Your task to perform on an android device: Open network settings Image 0: 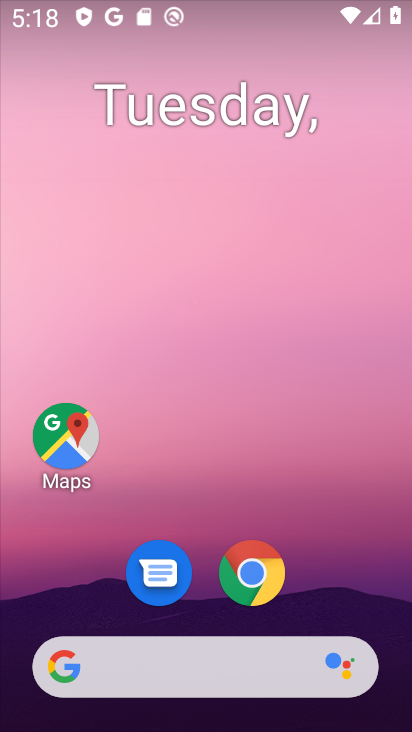
Step 0: drag from (345, 572) to (253, 30)
Your task to perform on an android device: Open network settings Image 1: 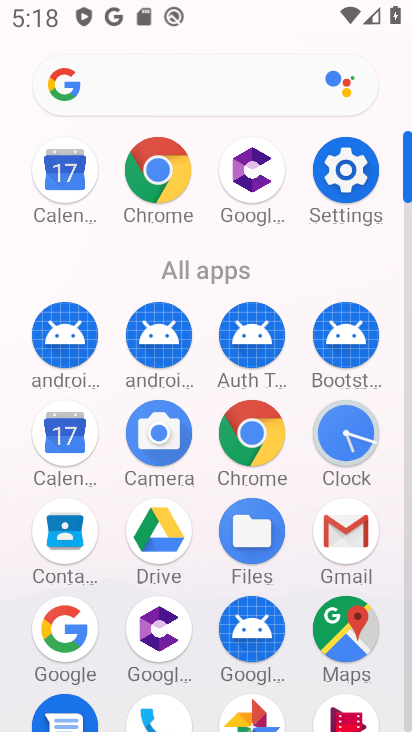
Step 1: drag from (13, 533) to (13, 198)
Your task to perform on an android device: Open network settings Image 2: 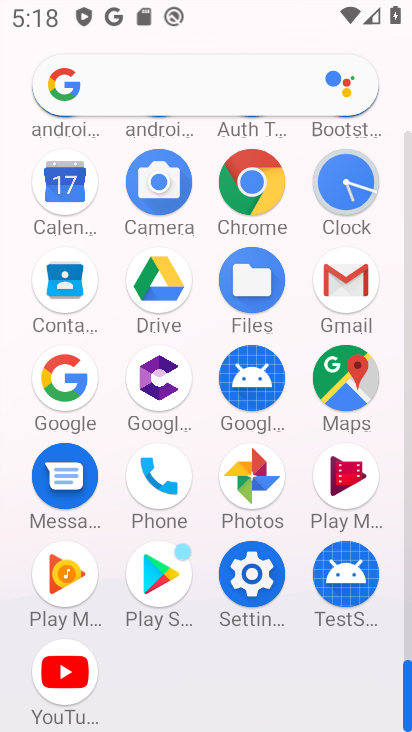
Step 2: click (253, 570)
Your task to perform on an android device: Open network settings Image 3: 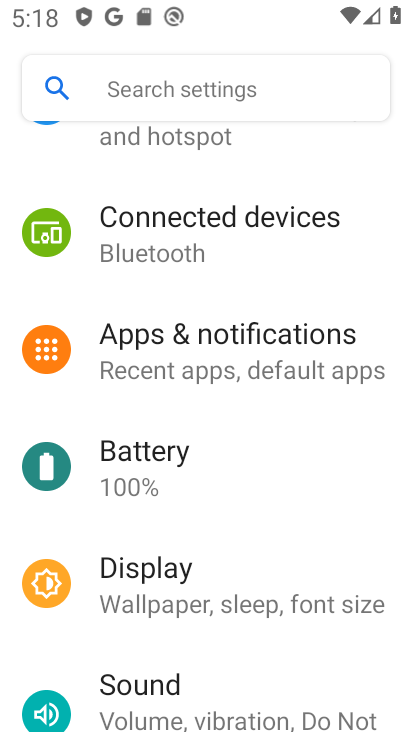
Step 3: drag from (256, 234) to (272, 587)
Your task to perform on an android device: Open network settings Image 4: 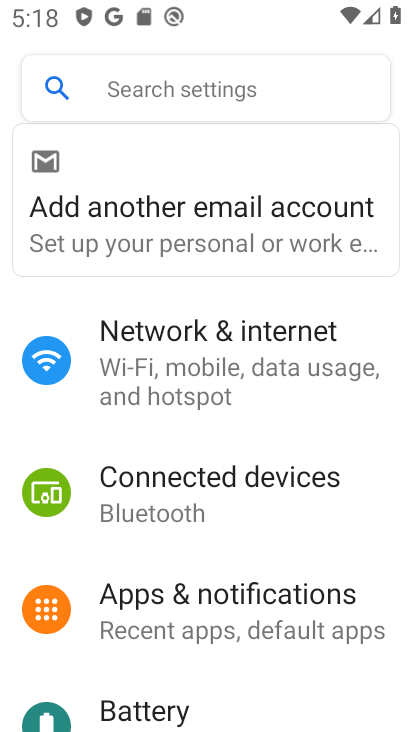
Step 4: click (231, 369)
Your task to perform on an android device: Open network settings Image 5: 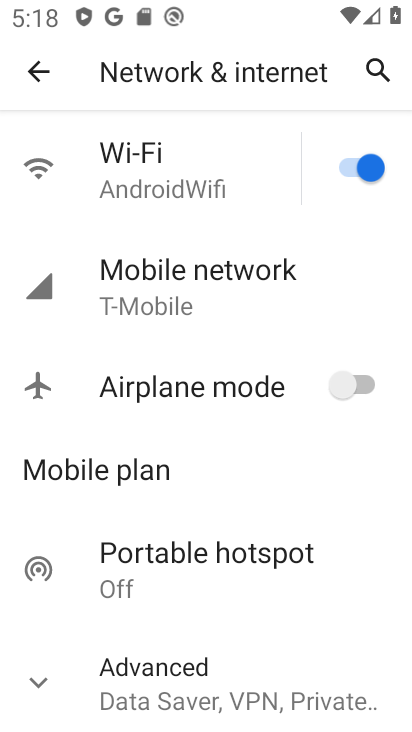
Step 5: drag from (211, 547) to (197, 162)
Your task to perform on an android device: Open network settings Image 6: 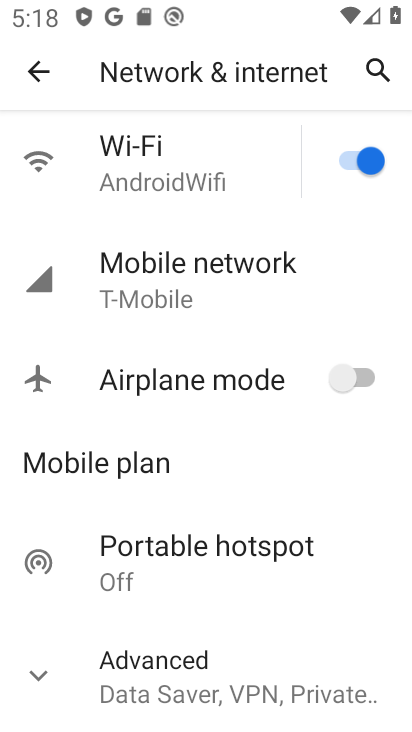
Step 6: click (32, 670)
Your task to perform on an android device: Open network settings Image 7: 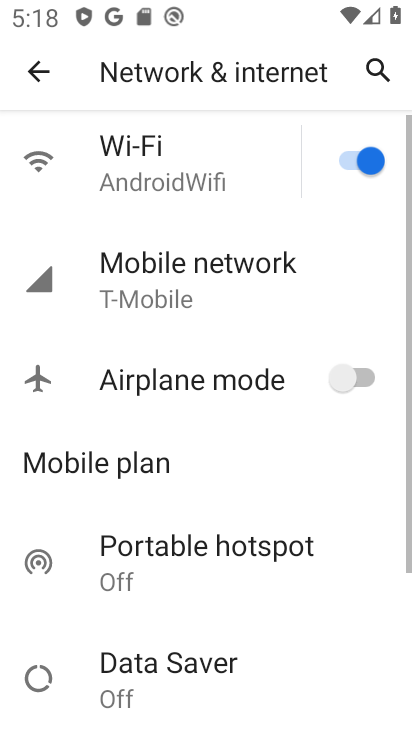
Step 7: task complete